Your task to perform on an android device: Go to location settings Image 0: 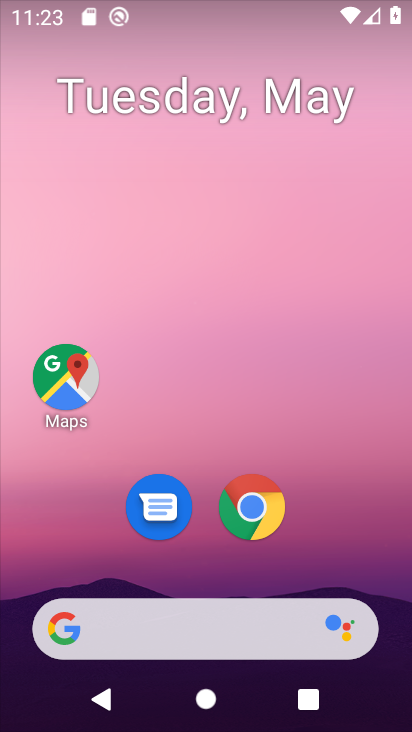
Step 0: drag from (279, 695) to (259, 198)
Your task to perform on an android device: Go to location settings Image 1: 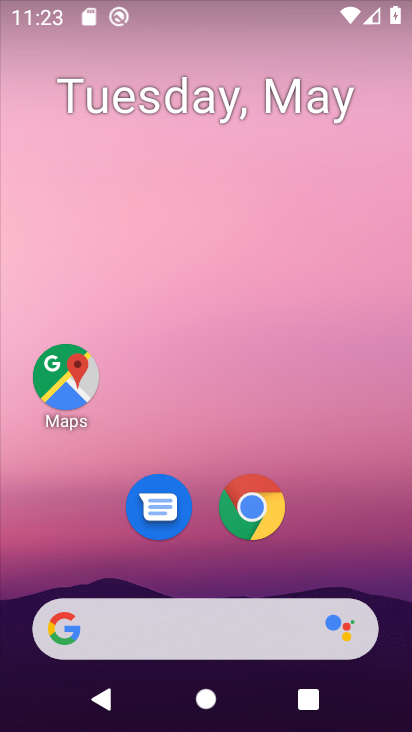
Step 1: drag from (251, 657) to (203, 280)
Your task to perform on an android device: Go to location settings Image 2: 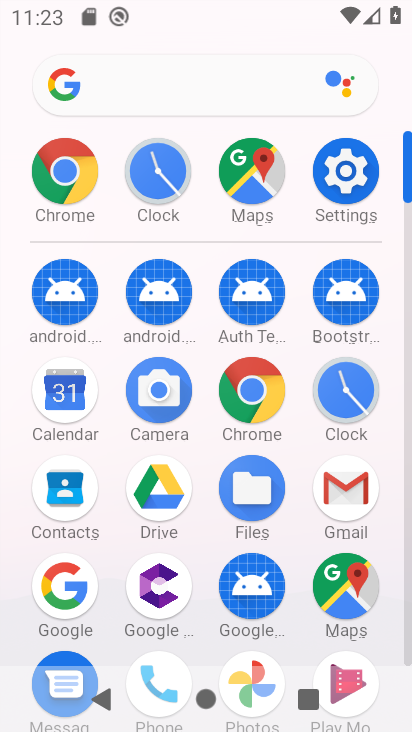
Step 2: click (343, 169)
Your task to perform on an android device: Go to location settings Image 3: 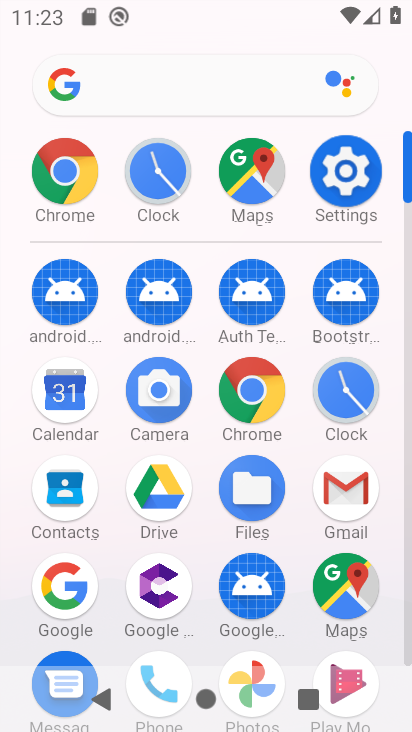
Step 3: click (343, 169)
Your task to perform on an android device: Go to location settings Image 4: 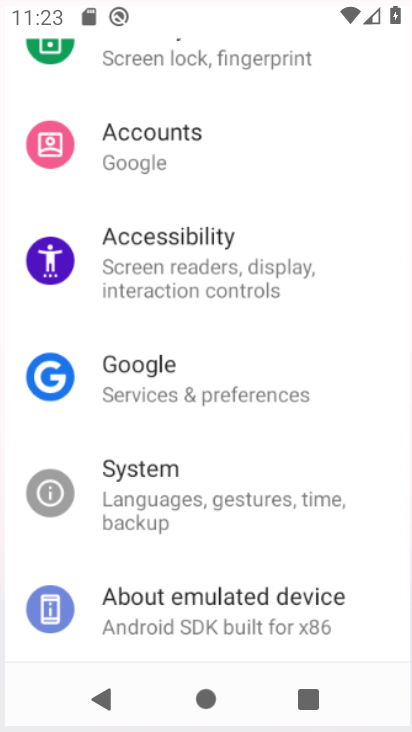
Step 4: click (344, 169)
Your task to perform on an android device: Go to location settings Image 5: 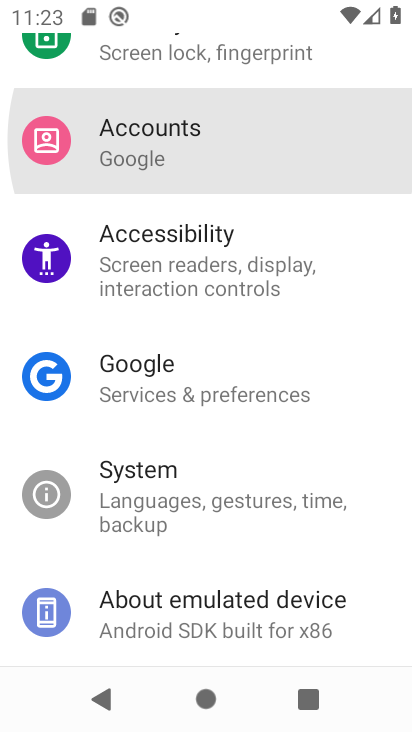
Step 5: click (344, 169)
Your task to perform on an android device: Go to location settings Image 6: 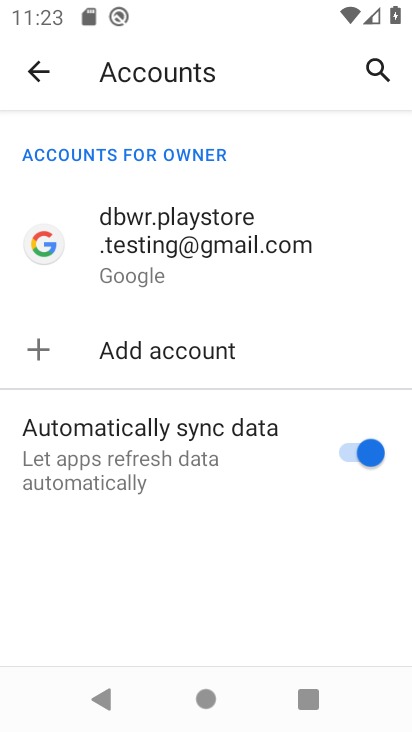
Step 6: click (27, 85)
Your task to perform on an android device: Go to location settings Image 7: 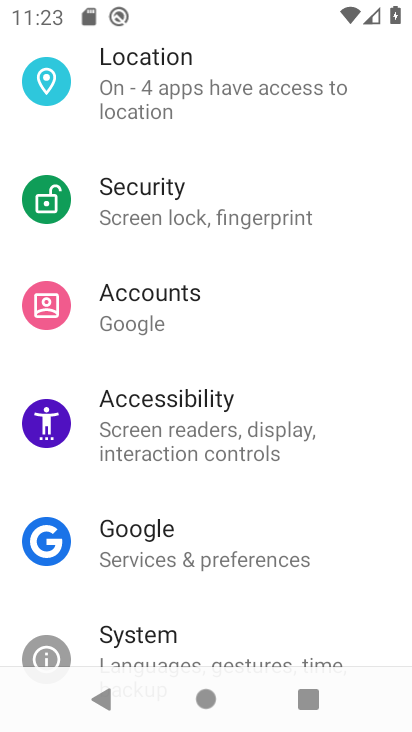
Step 7: click (187, 82)
Your task to perform on an android device: Go to location settings Image 8: 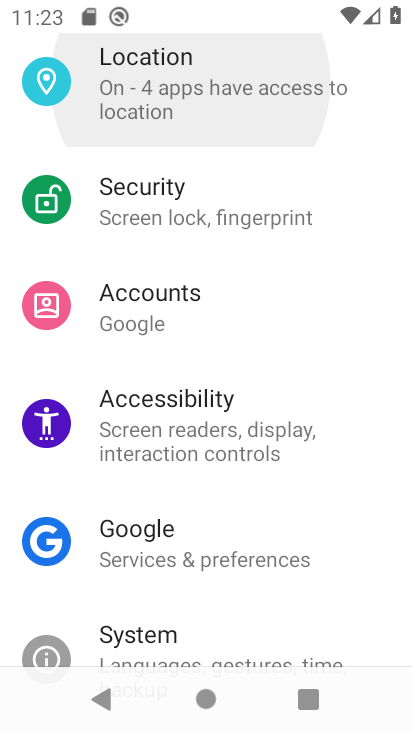
Step 8: click (187, 82)
Your task to perform on an android device: Go to location settings Image 9: 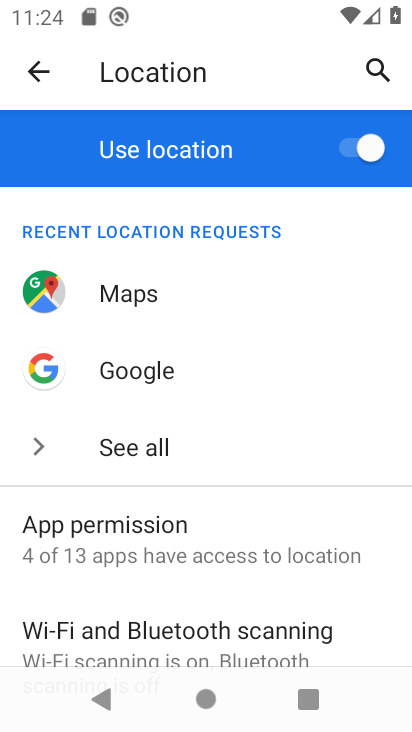
Step 9: task complete